Your task to perform on an android device: add a contact in the contacts app Image 0: 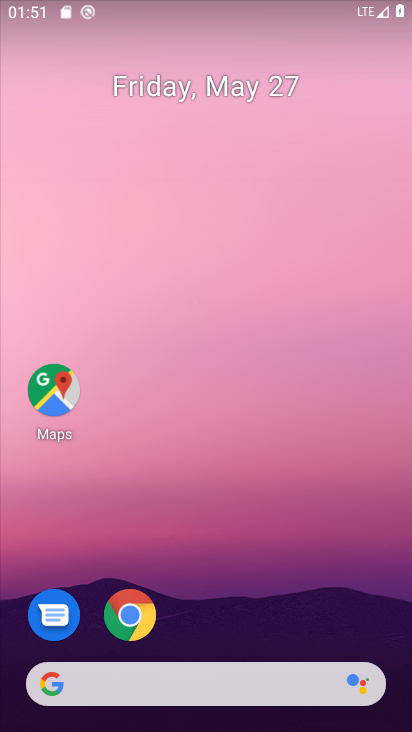
Step 0: drag from (351, 632) to (355, 215)
Your task to perform on an android device: add a contact in the contacts app Image 1: 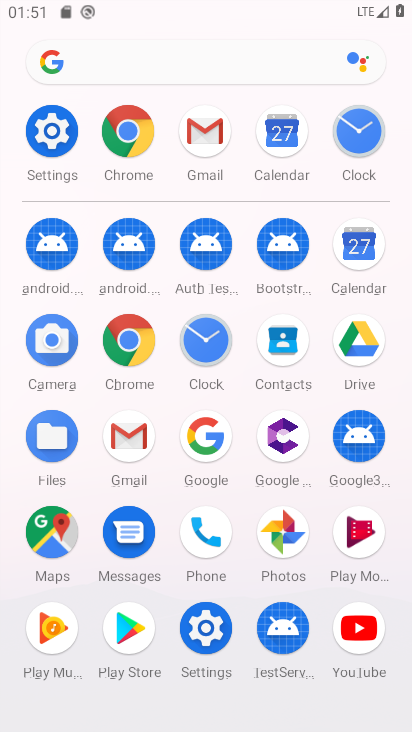
Step 1: click (285, 348)
Your task to perform on an android device: add a contact in the contacts app Image 2: 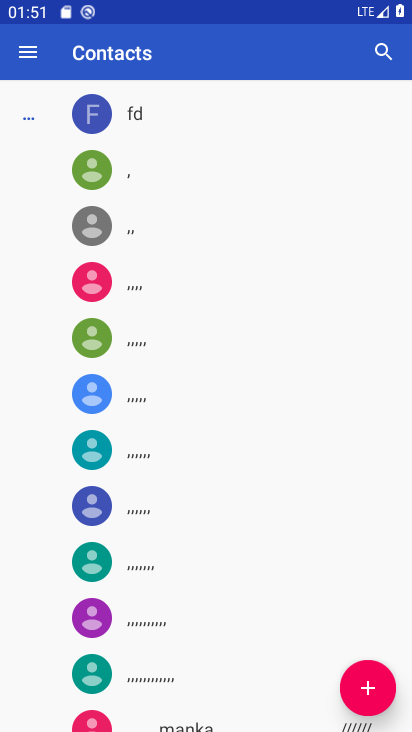
Step 2: click (368, 680)
Your task to perform on an android device: add a contact in the contacts app Image 3: 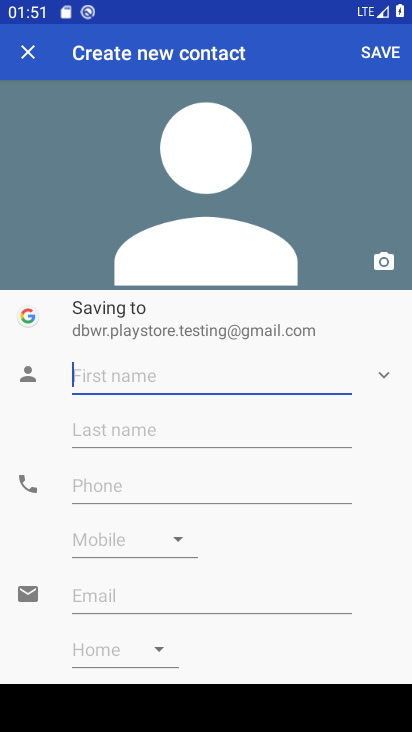
Step 3: click (261, 379)
Your task to perform on an android device: add a contact in the contacts app Image 4: 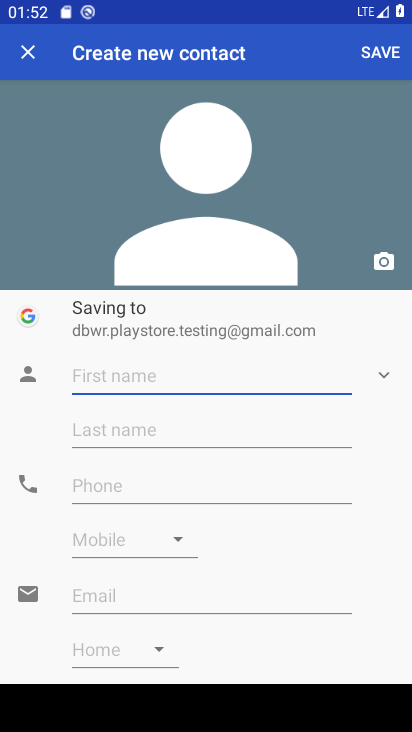
Step 4: type "maaaan"
Your task to perform on an android device: add a contact in the contacts app Image 5: 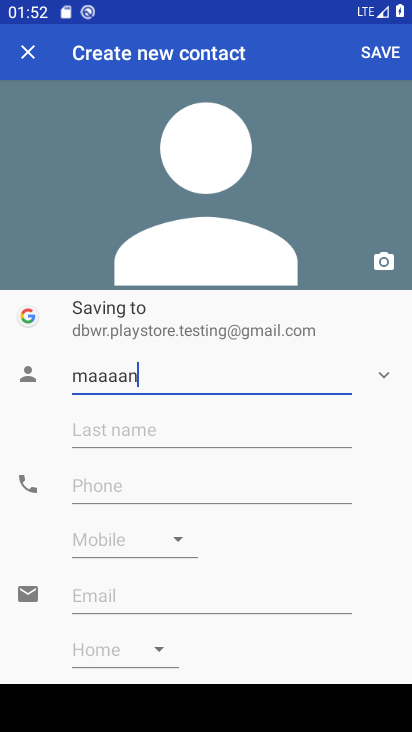
Step 5: click (323, 478)
Your task to perform on an android device: add a contact in the contacts app Image 6: 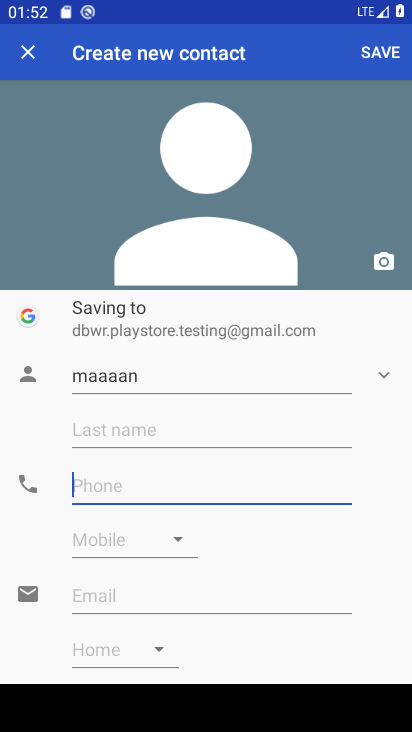
Step 6: type "123456789"
Your task to perform on an android device: add a contact in the contacts app Image 7: 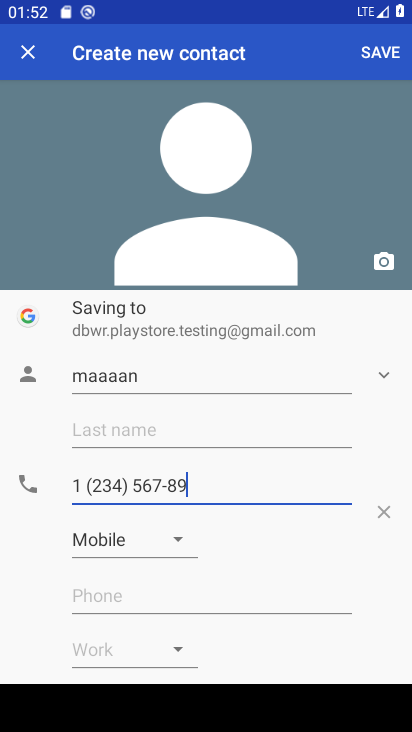
Step 7: task complete